Your task to perform on an android device: delete location history Image 0: 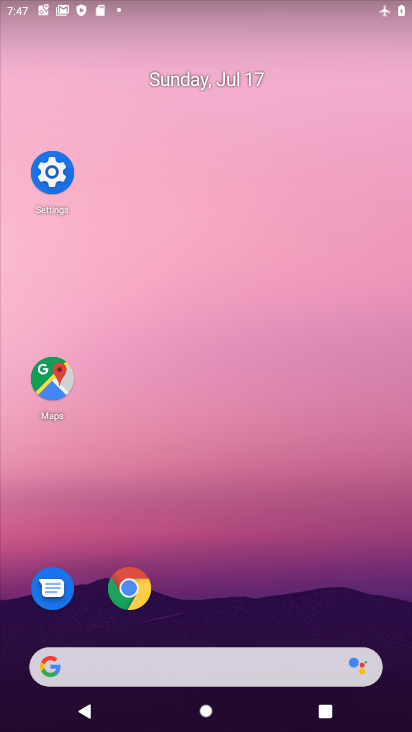
Step 0: click (53, 177)
Your task to perform on an android device: delete location history Image 1: 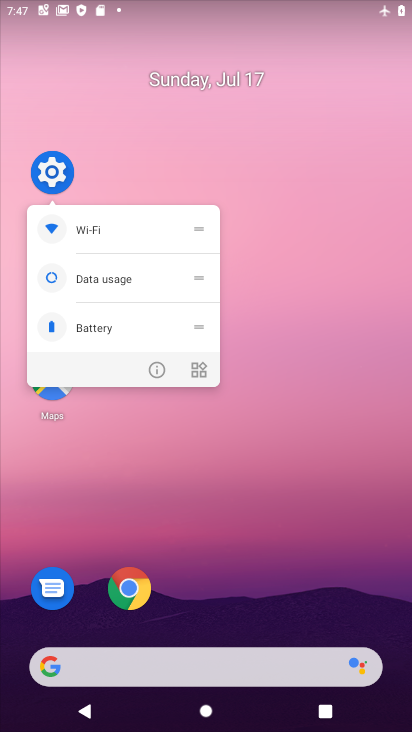
Step 1: click (53, 181)
Your task to perform on an android device: delete location history Image 2: 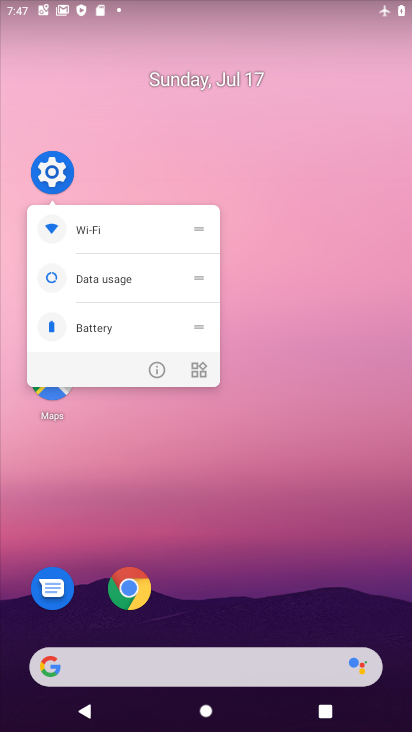
Step 2: click (53, 182)
Your task to perform on an android device: delete location history Image 3: 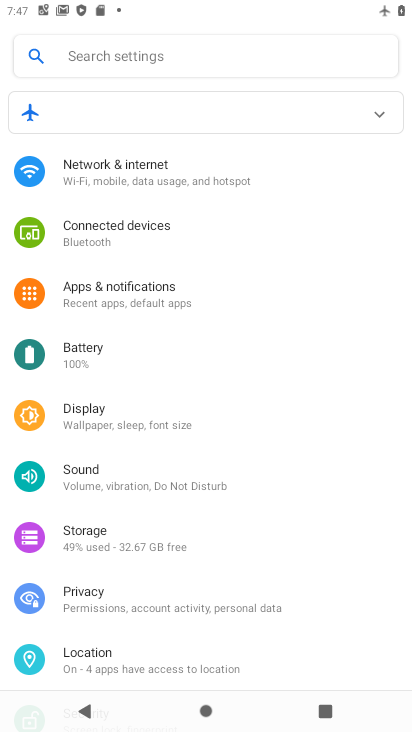
Step 3: click (168, 657)
Your task to perform on an android device: delete location history Image 4: 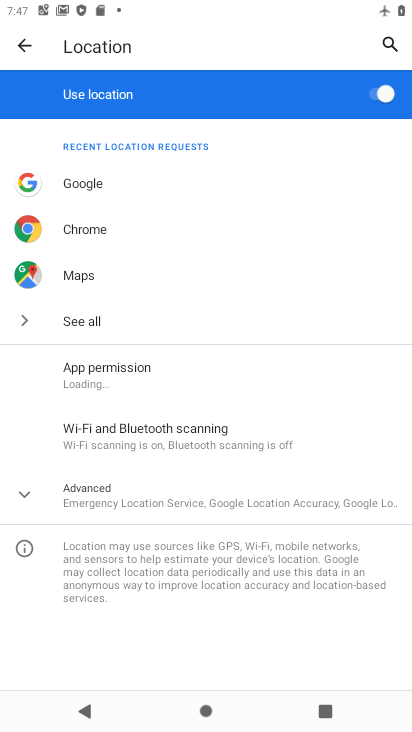
Step 4: click (173, 496)
Your task to perform on an android device: delete location history Image 5: 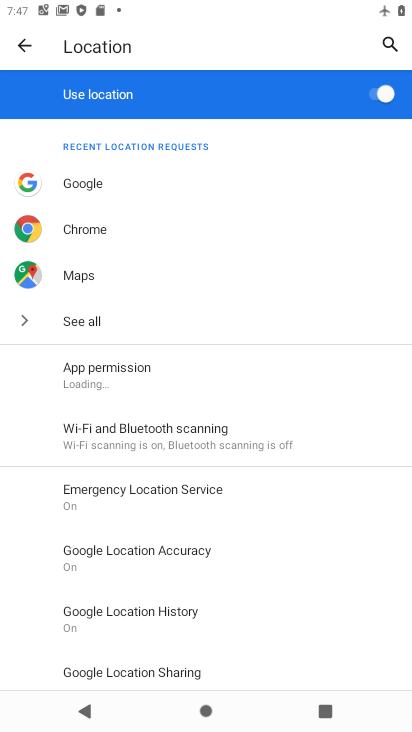
Step 5: click (164, 617)
Your task to perform on an android device: delete location history Image 6: 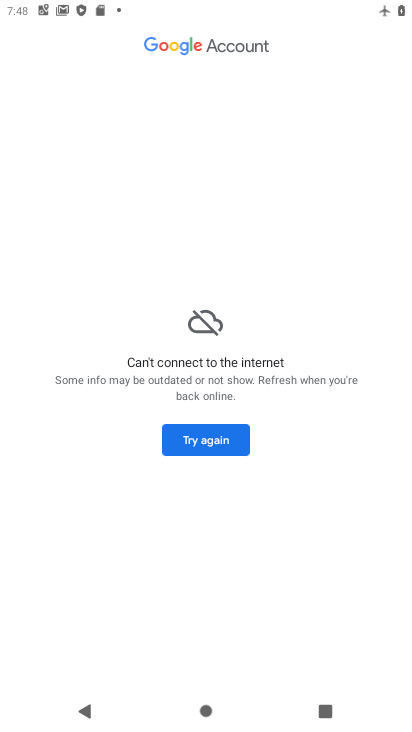
Step 6: task complete